Your task to perform on an android device: open device folders in google photos Image 0: 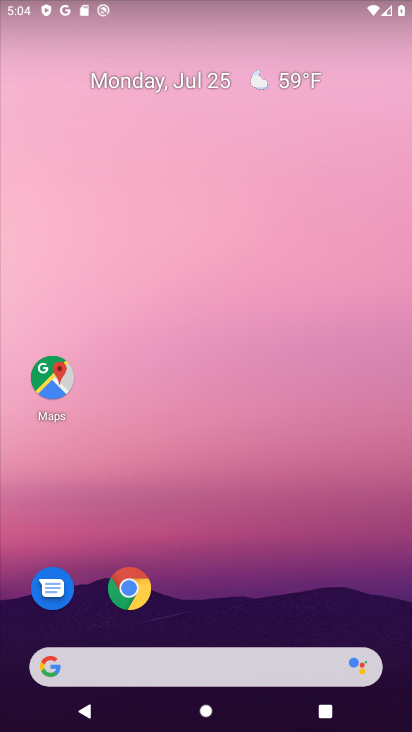
Step 0: drag from (294, 547) to (232, 145)
Your task to perform on an android device: open device folders in google photos Image 1: 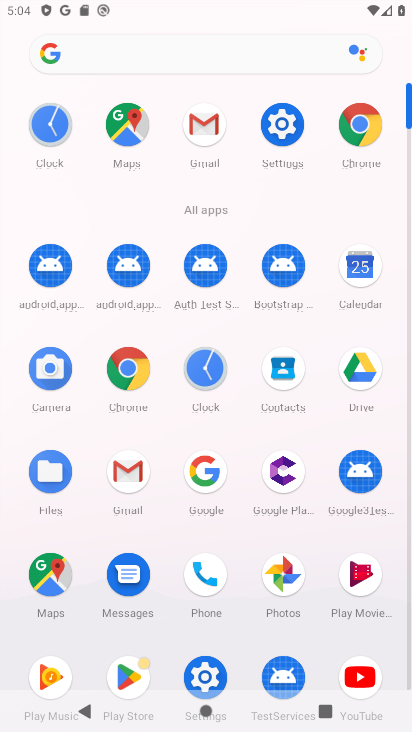
Step 1: click (286, 565)
Your task to perform on an android device: open device folders in google photos Image 2: 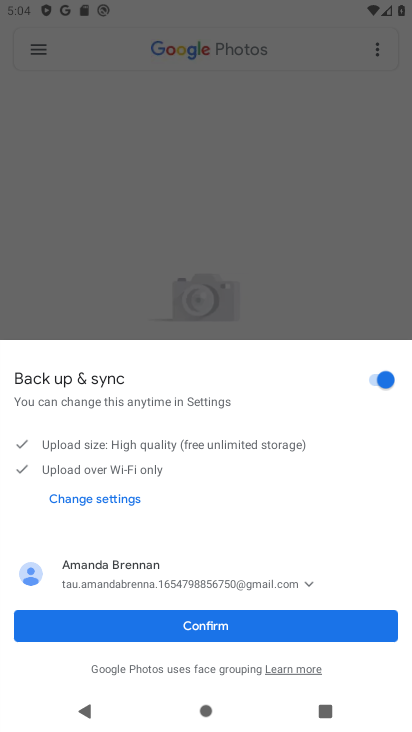
Step 2: click (266, 628)
Your task to perform on an android device: open device folders in google photos Image 3: 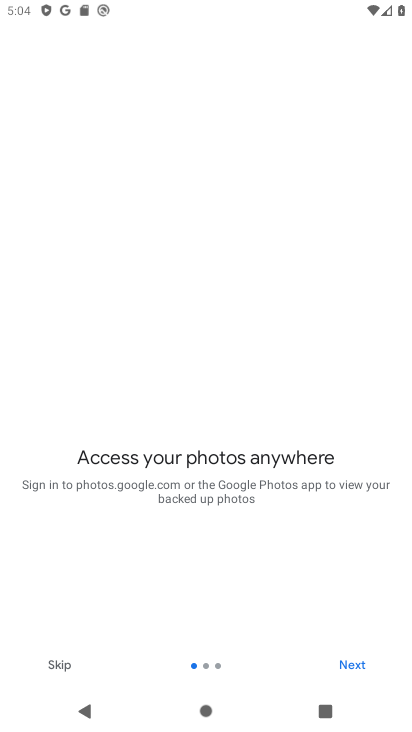
Step 3: task complete